Your task to perform on an android device: check android version Image 0: 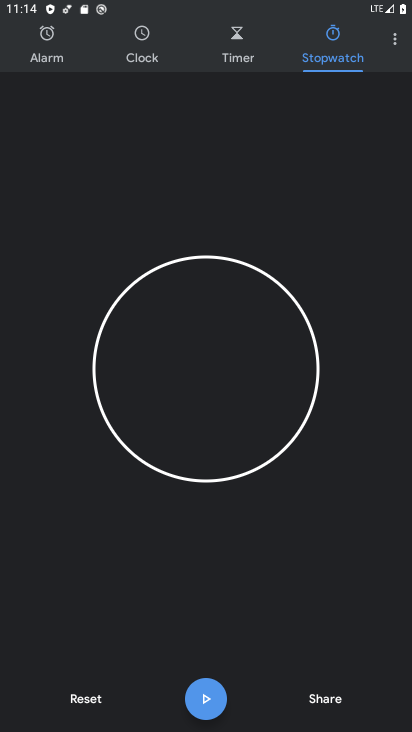
Step 0: press home button
Your task to perform on an android device: check android version Image 1: 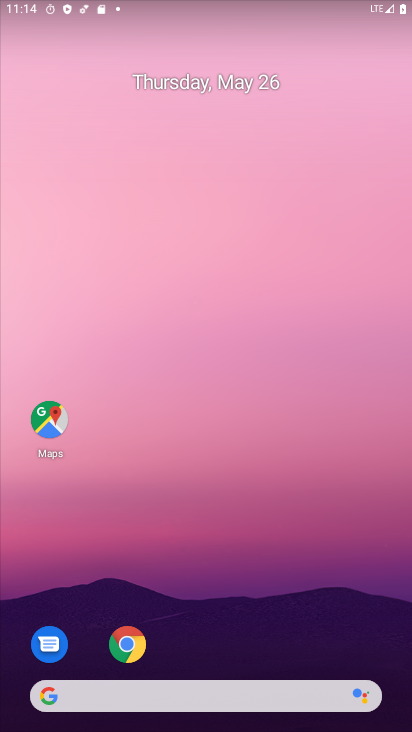
Step 1: drag from (135, 730) to (165, 158)
Your task to perform on an android device: check android version Image 2: 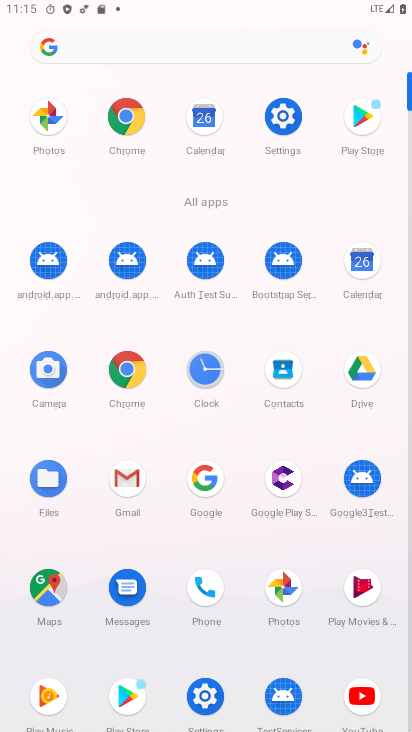
Step 2: click (280, 117)
Your task to perform on an android device: check android version Image 3: 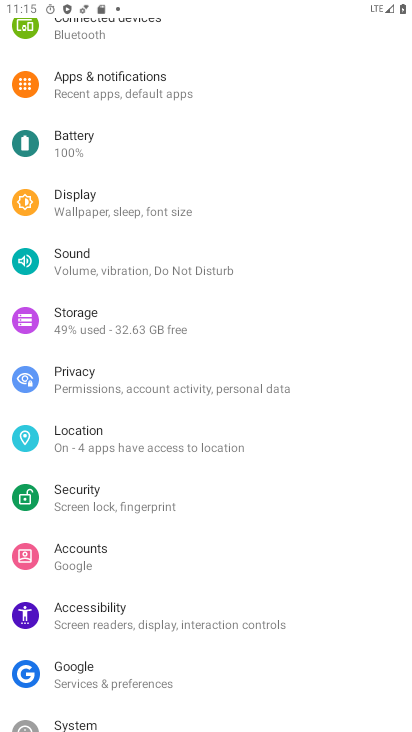
Step 3: drag from (212, 691) to (178, 207)
Your task to perform on an android device: check android version Image 4: 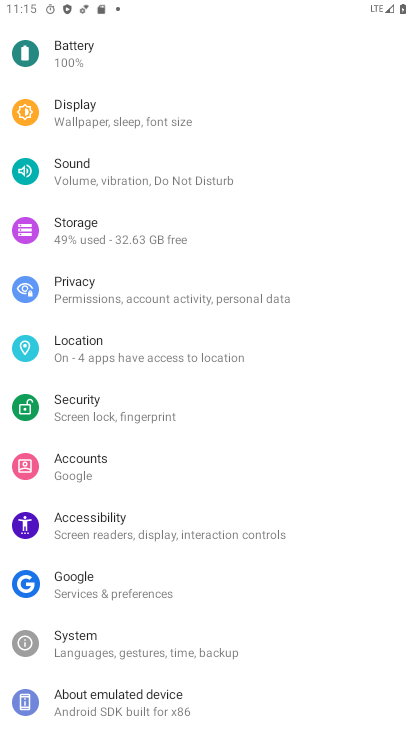
Step 4: click (167, 715)
Your task to perform on an android device: check android version Image 5: 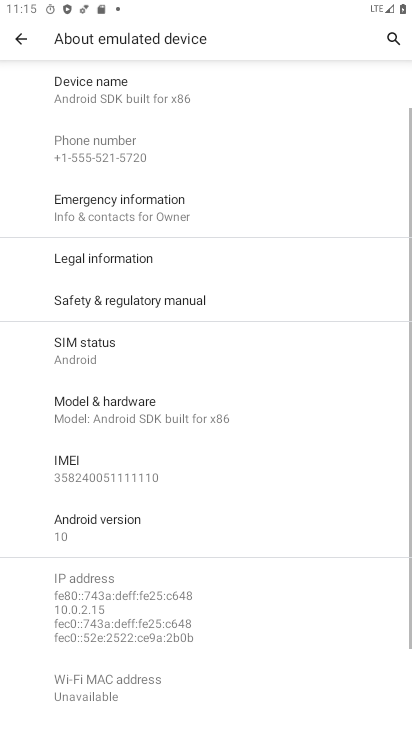
Step 5: task complete